Your task to perform on an android device: turn off notifications settings in the gmail app Image 0: 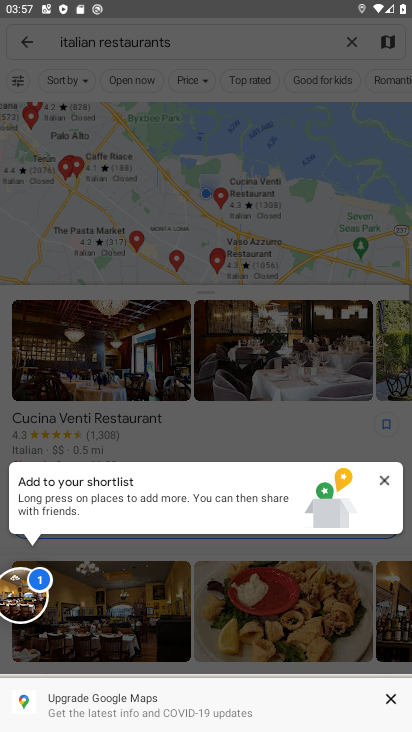
Step 0: press home button
Your task to perform on an android device: turn off notifications settings in the gmail app Image 1: 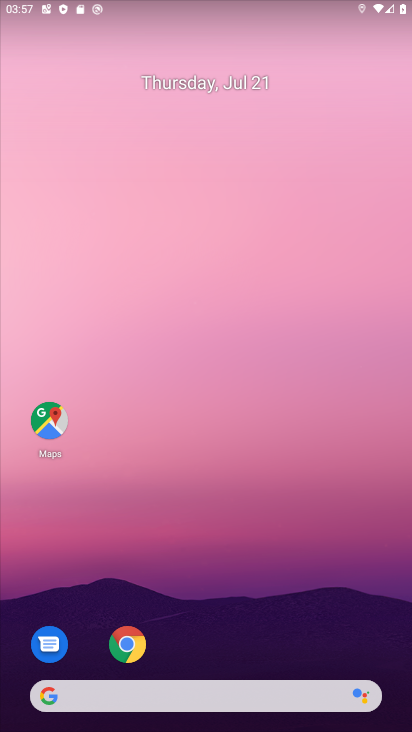
Step 1: drag from (252, 666) to (307, 4)
Your task to perform on an android device: turn off notifications settings in the gmail app Image 2: 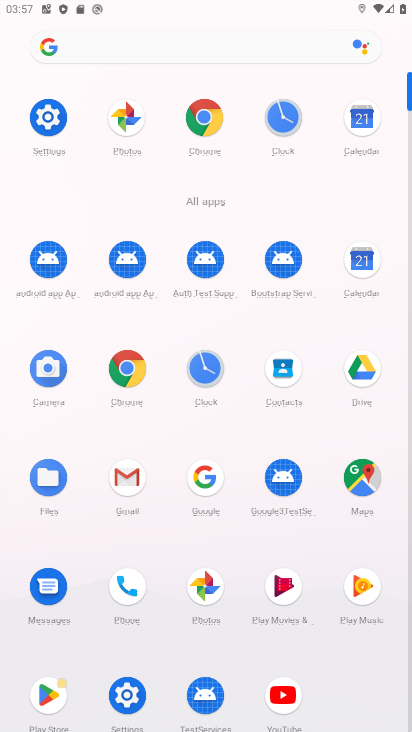
Step 2: click (124, 478)
Your task to perform on an android device: turn off notifications settings in the gmail app Image 3: 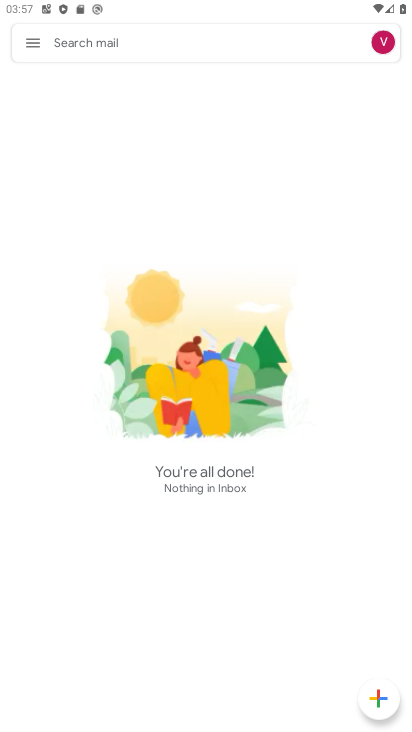
Step 3: click (23, 40)
Your task to perform on an android device: turn off notifications settings in the gmail app Image 4: 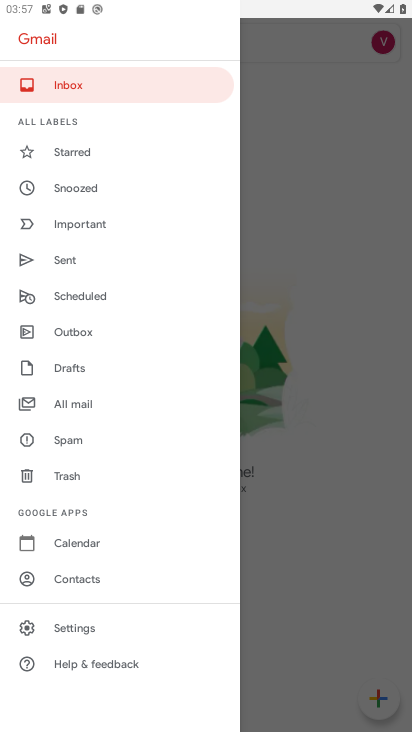
Step 4: click (72, 629)
Your task to perform on an android device: turn off notifications settings in the gmail app Image 5: 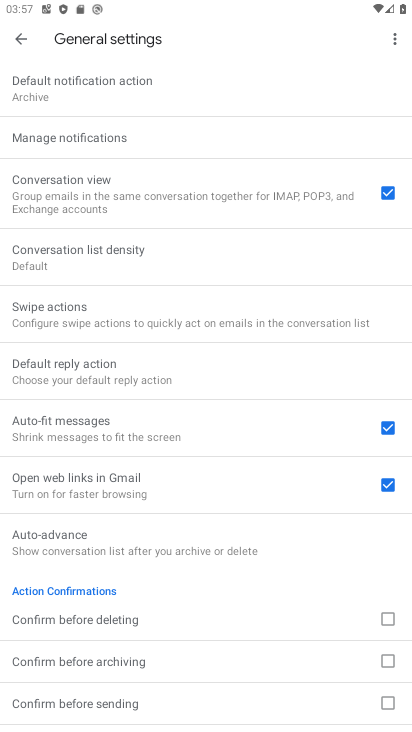
Step 5: click (69, 144)
Your task to perform on an android device: turn off notifications settings in the gmail app Image 6: 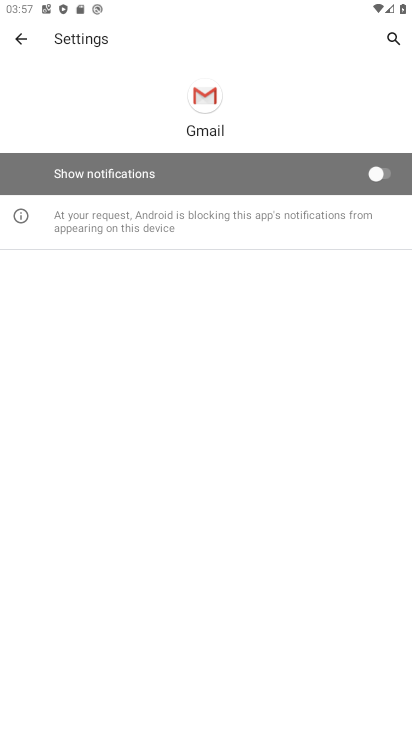
Step 6: task complete